Your task to perform on an android device: Open my contact list Image 0: 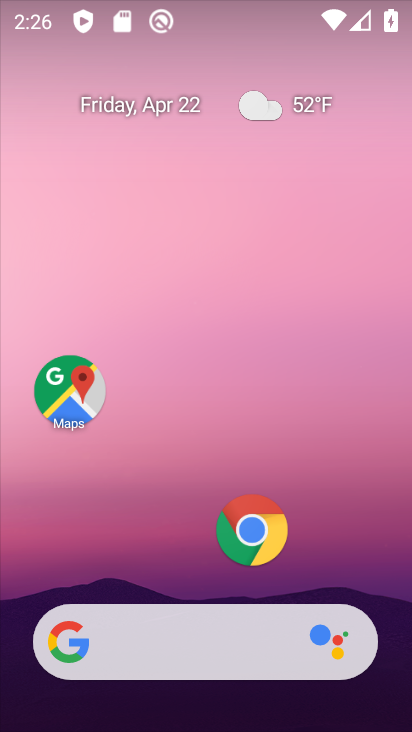
Step 0: drag from (225, 586) to (255, 264)
Your task to perform on an android device: Open my contact list Image 1: 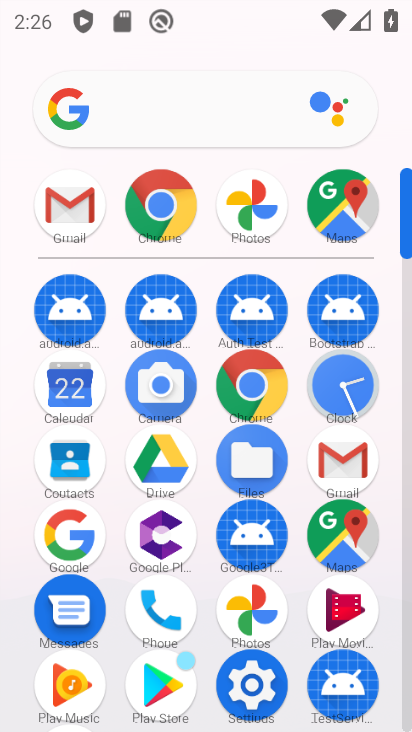
Step 1: click (65, 455)
Your task to perform on an android device: Open my contact list Image 2: 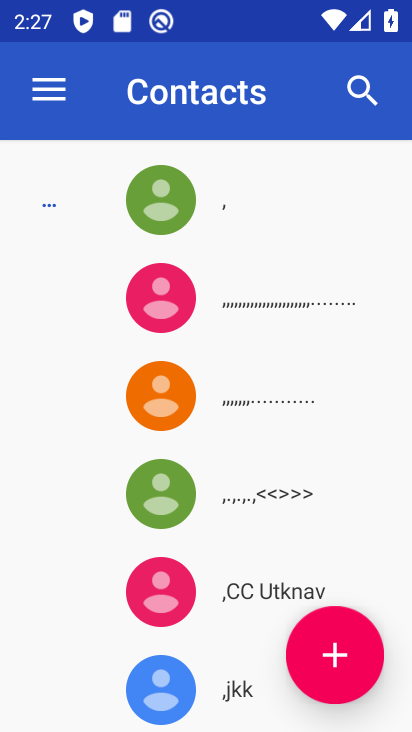
Step 2: task complete